Your task to perform on an android device: change your default location settings in chrome Image 0: 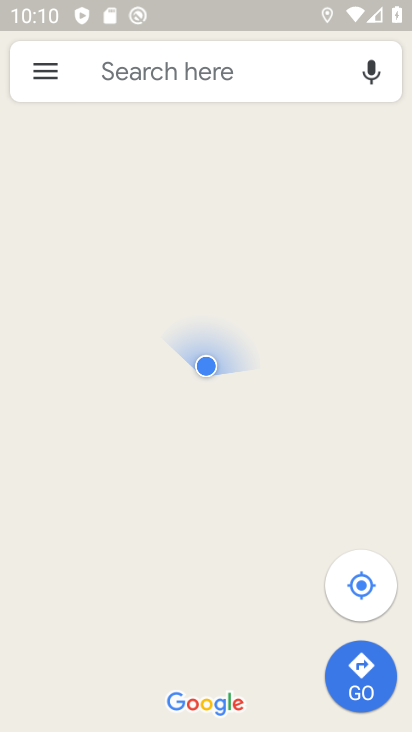
Step 0: press home button
Your task to perform on an android device: change your default location settings in chrome Image 1: 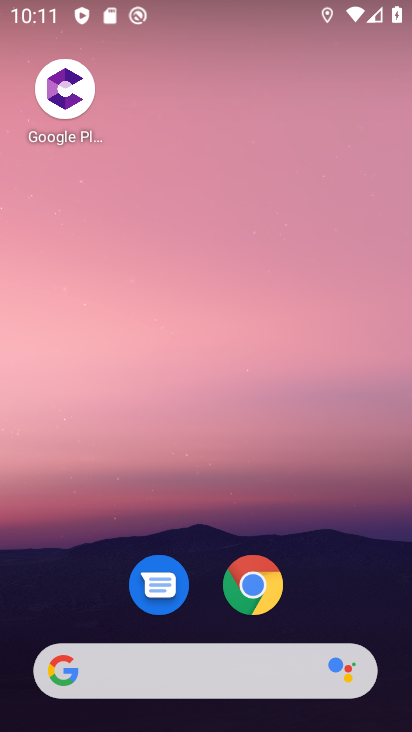
Step 1: click (248, 585)
Your task to perform on an android device: change your default location settings in chrome Image 2: 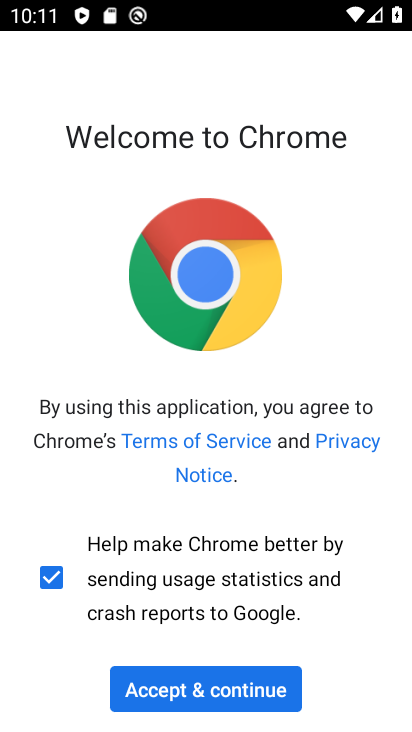
Step 2: click (235, 686)
Your task to perform on an android device: change your default location settings in chrome Image 3: 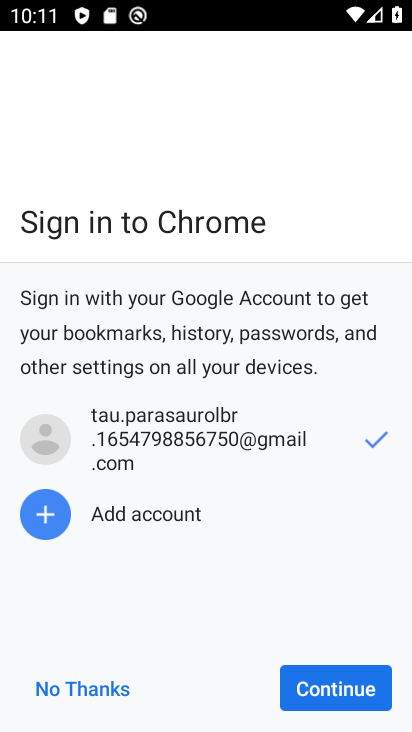
Step 3: click (312, 681)
Your task to perform on an android device: change your default location settings in chrome Image 4: 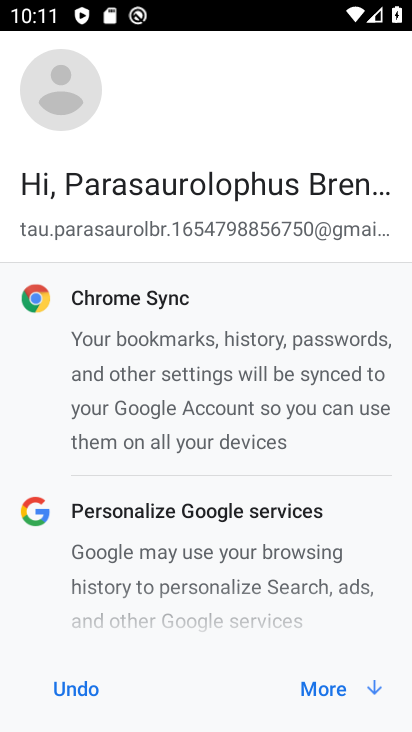
Step 4: click (321, 691)
Your task to perform on an android device: change your default location settings in chrome Image 5: 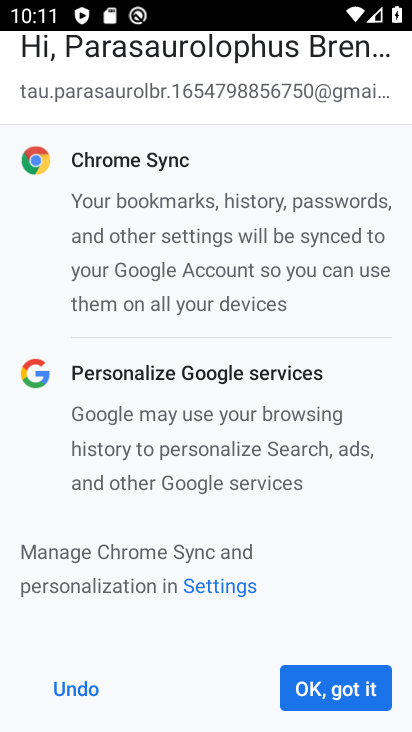
Step 5: click (321, 691)
Your task to perform on an android device: change your default location settings in chrome Image 6: 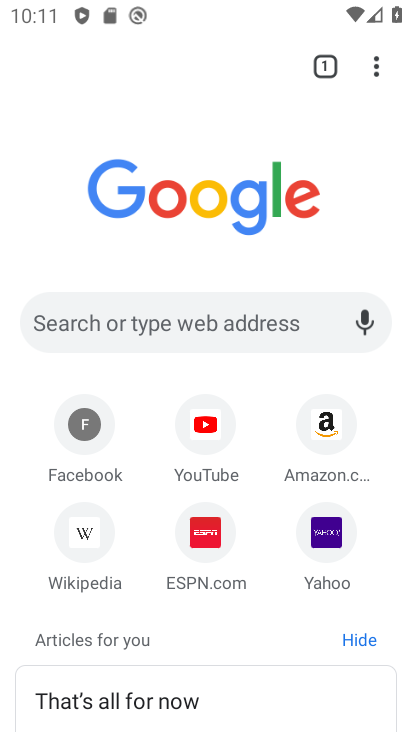
Step 6: drag from (374, 73) to (206, 564)
Your task to perform on an android device: change your default location settings in chrome Image 7: 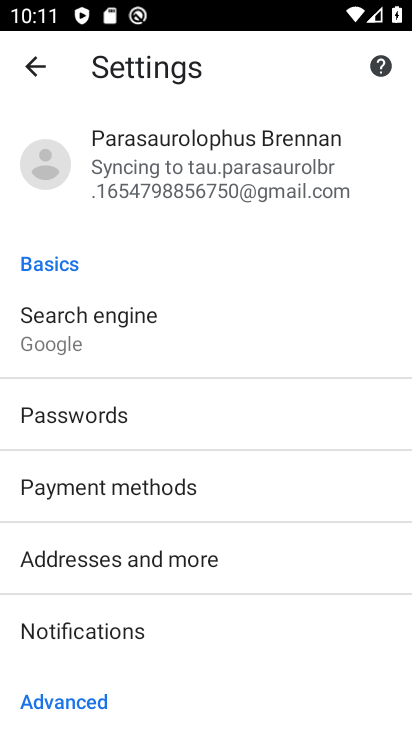
Step 7: drag from (179, 643) to (220, 442)
Your task to perform on an android device: change your default location settings in chrome Image 8: 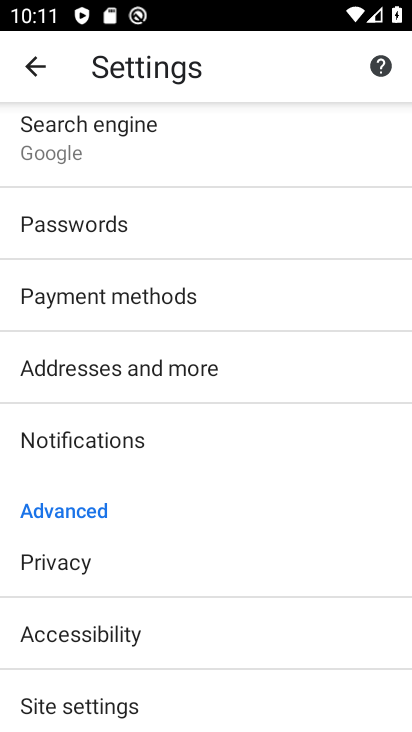
Step 8: drag from (170, 617) to (261, 267)
Your task to perform on an android device: change your default location settings in chrome Image 9: 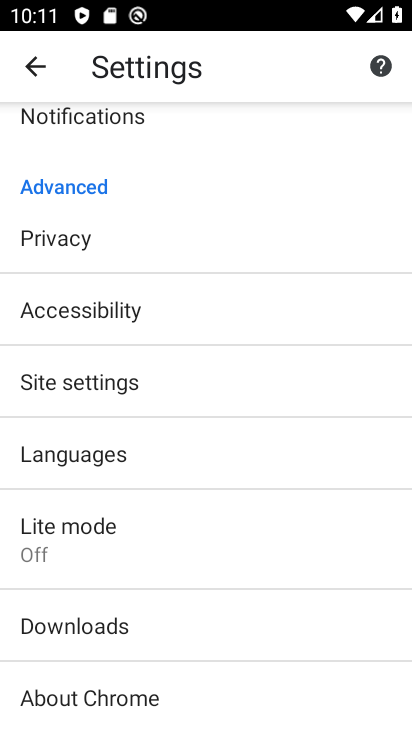
Step 9: click (62, 376)
Your task to perform on an android device: change your default location settings in chrome Image 10: 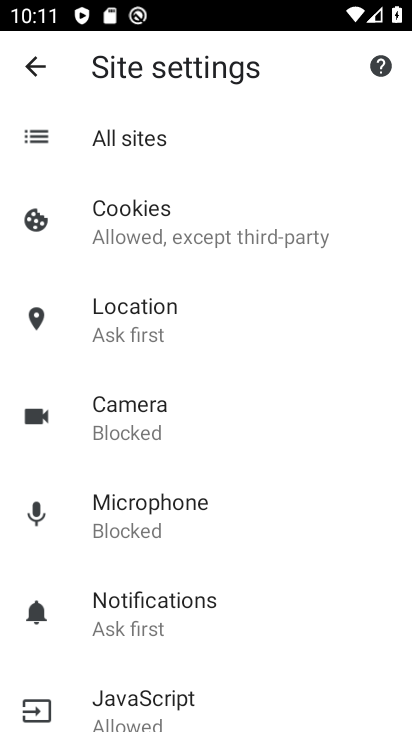
Step 10: click (145, 340)
Your task to perform on an android device: change your default location settings in chrome Image 11: 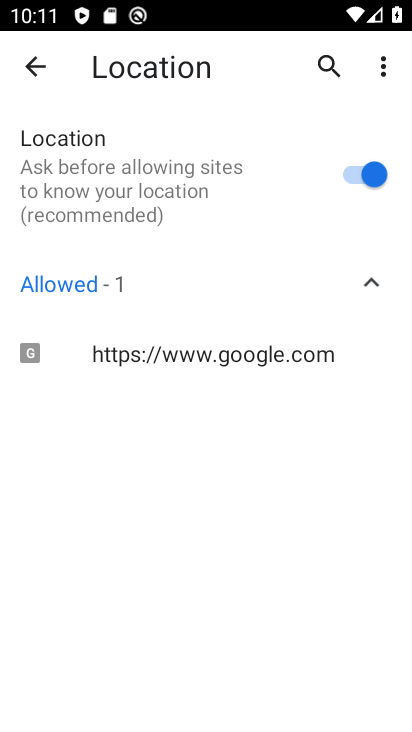
Step 11: click (368, 180)
Your task to perform on an android device: change your default location settings in chrome Image 12: 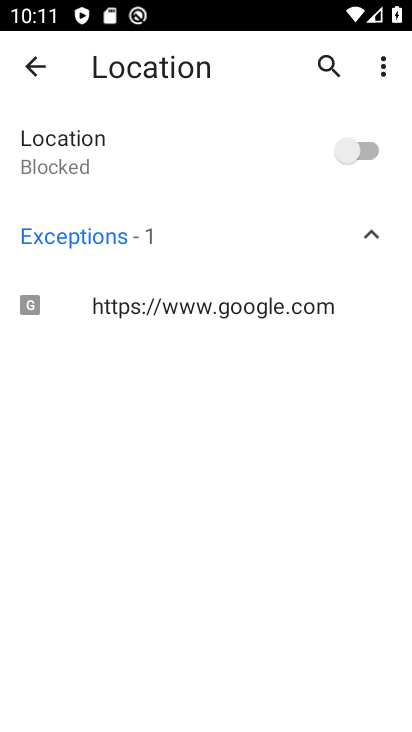
Step 12: task complete